Your task to perform on an android device: move an email to a new category in the gmail app Image 0: 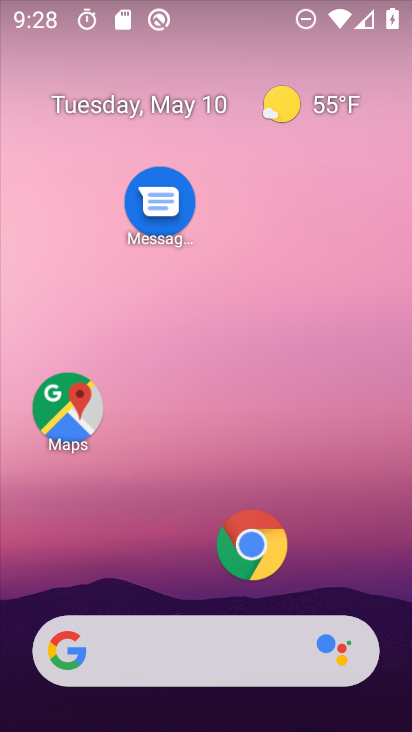
Step 0: drag from (182, 595) to (216, 233)
Your task to perform on an android device: move an email to a new category in the gmail app Image 1: 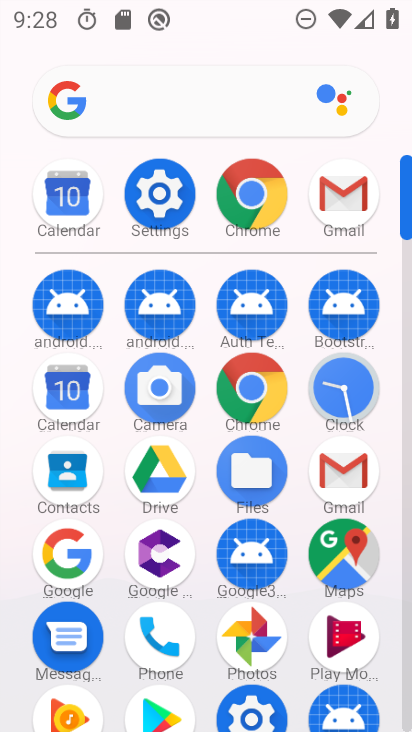
Step 1: click (343, 185)
Your task to perform on an android device: move an email to a new category in the gmail app Image 2: 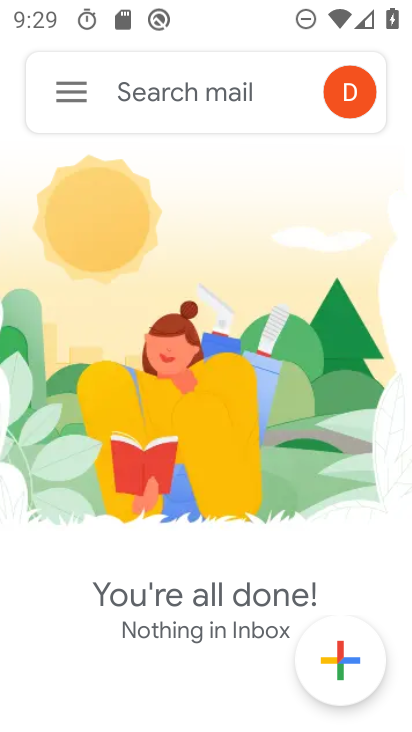
Step 2: click (66, 90)
Your task to perform on an android device: move an email to a new category in the gmail app Image 3: 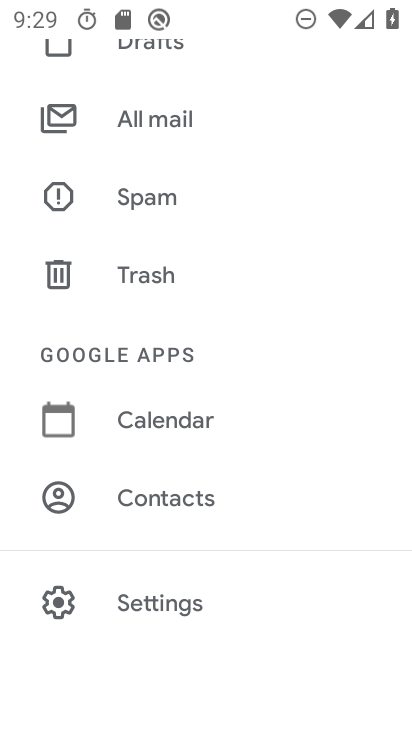
Step 3: click (141, 130)
Your task to perform on an android device: move an email to a new category in the gmail app Image 4: 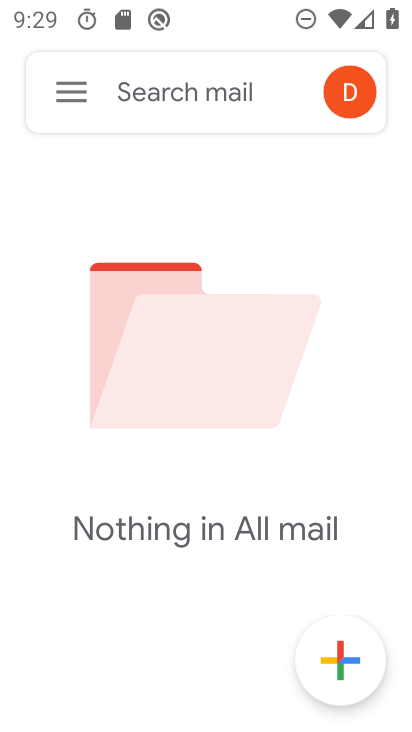
Step 4: click (66, 82)
Your task to perform on an android device: move an email to a new category in the gmail app Image 5: 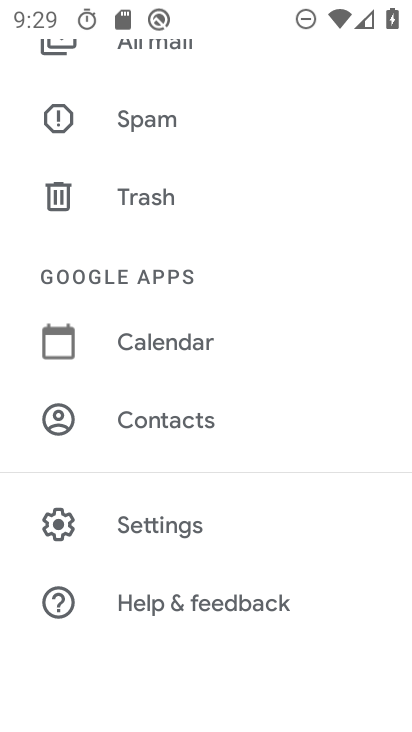
Step 5: drag from (162, 95) to (168, 286)
Your task to perform on an android device: move an email to a new category in the gmail app Image 6: 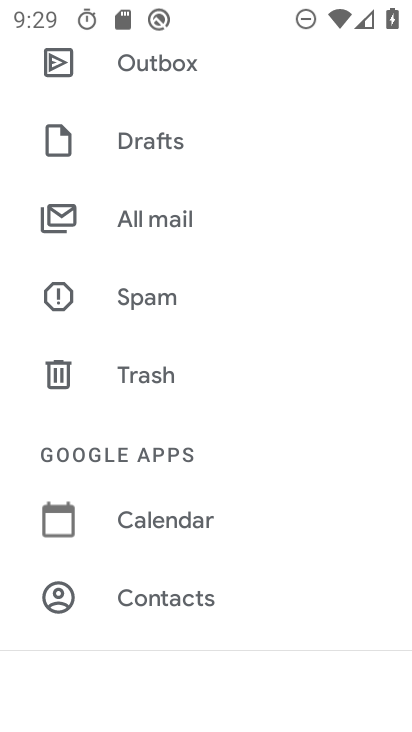
Step 6: click (154, 228)
Your task to perform on an android device: move an email to a new category in the gmail app Image 7: 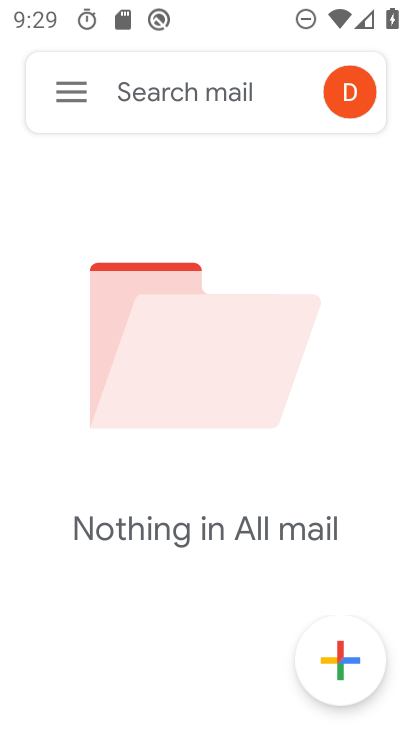
Step 7: click (46, 100)
Your task to perform on an android device: move an email to a new category in the gmail app Image 8: 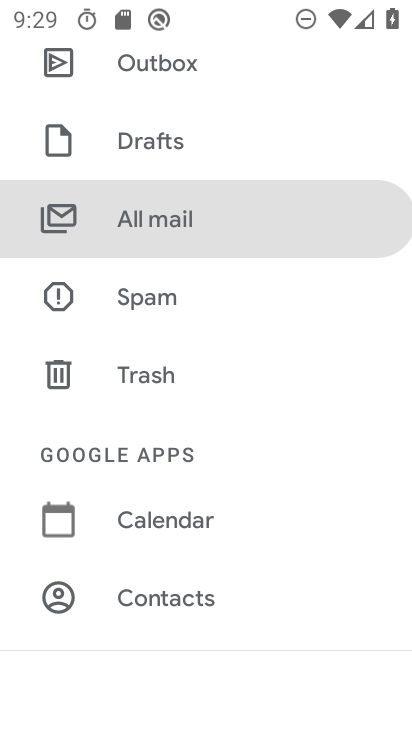
Step 8: click (128, 232)
Your task to perform on an android device: move an email to a new category in the gmail app Image 9: 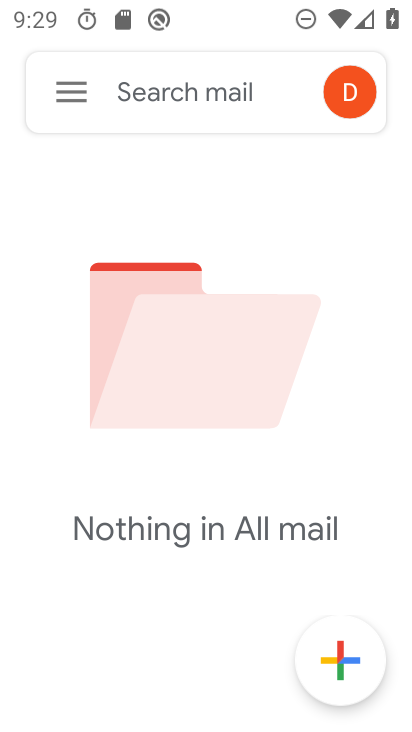
Step 9: task complete